Your task to perform on an android device: Show me popular games on the Play Store Image 0: 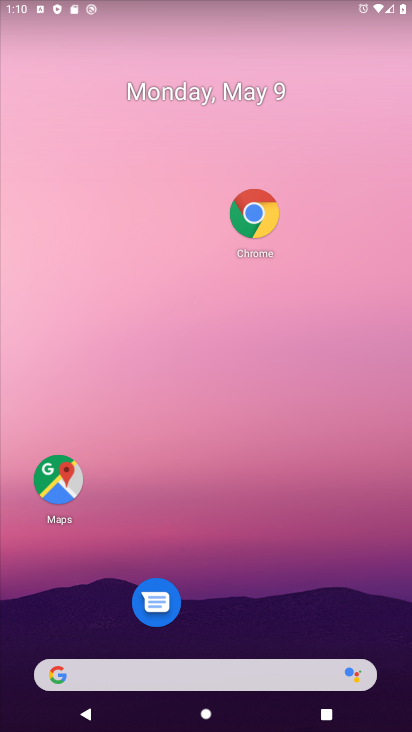
Step 0: drag from (290, 604) to (236, 14)
Your task to perform on an android device: Show me popular games on the Play Store Image 1: 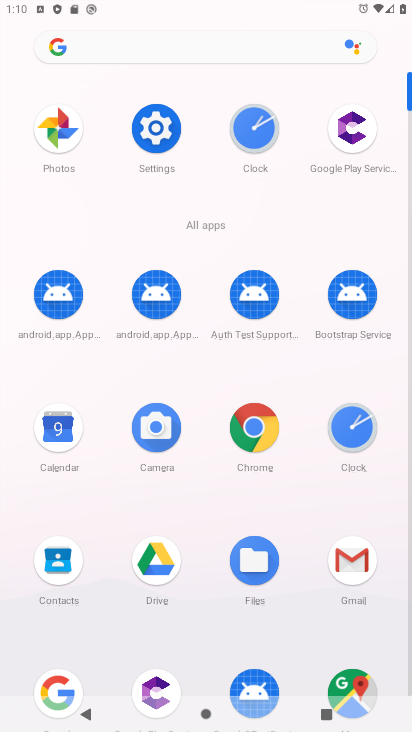
Step 1: click (410, 679)
Your task to perform on an android device: Show me popular games on the Play Store Image 2: 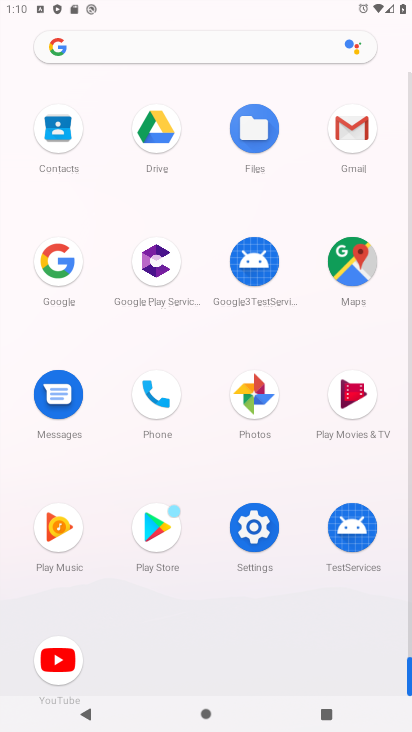
Step 2: click (163, 560)
Your task to perform on an android device: Show me popular games on the Play Store Image 3: 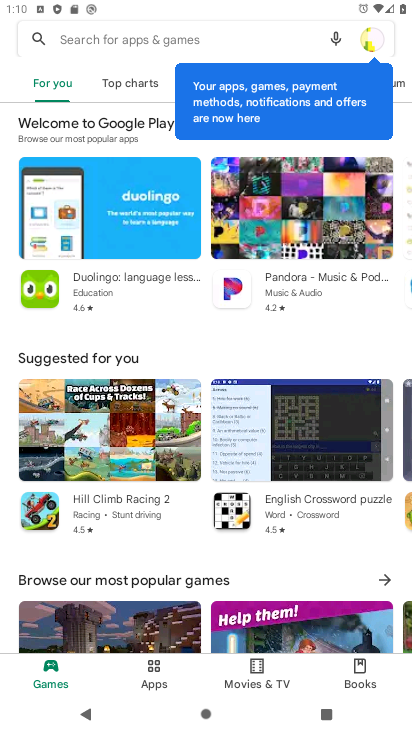
Step 3: click (125, 88)
Your task to perform on an android device: Show me popular games on the Play Store Image 4: 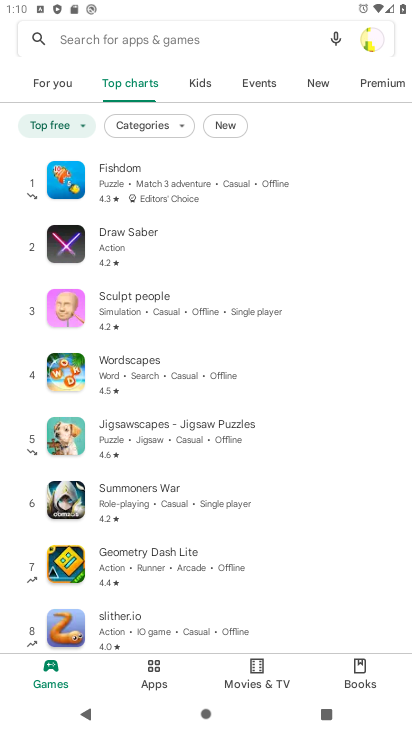
Step 4: click (68, 81)
Your task to perform on an android device: Show me popular games on the Play Store Image 5: 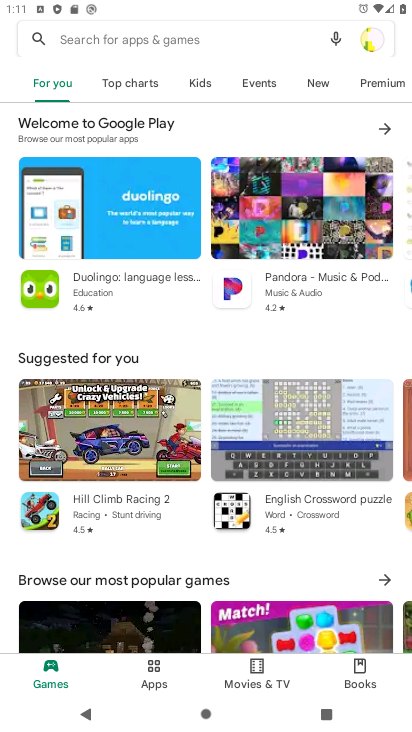
Step 5: click (127, 88)
Your task to perform on an android device: Show me popular games on the Play Store Image 6: 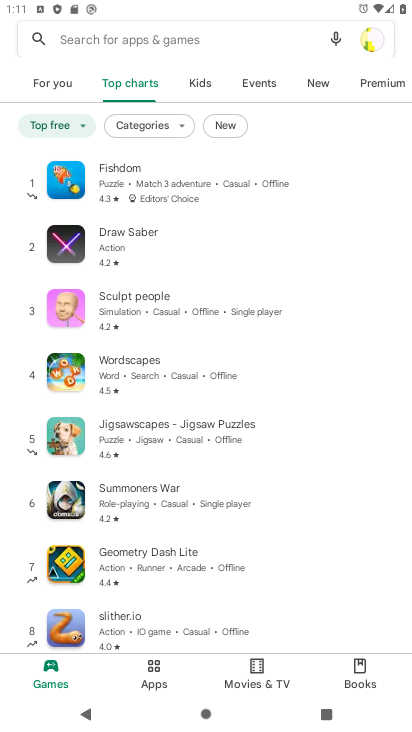
Step 6: click (167, 125)
Your task to perform on an android device: Show me popular games on the Play Store Image 7: 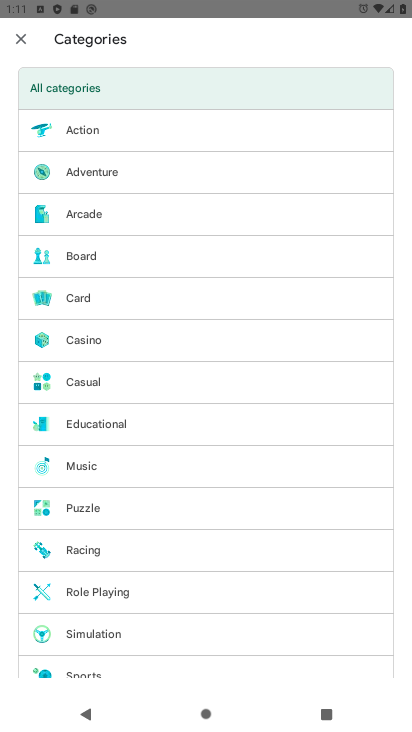
Step 7: task complete